Your task to perform on an android device: see tabs open on other devices in the chrome app Image 0: 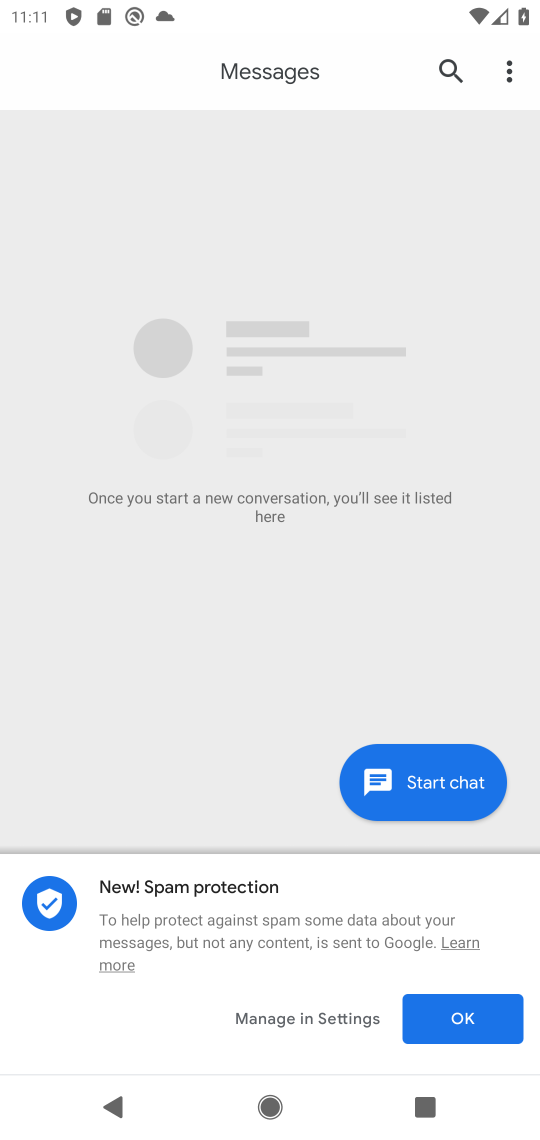
Step 0: press home button
Your task to perform on an android device: see tabs open on other devices in the chrome app Image 1: 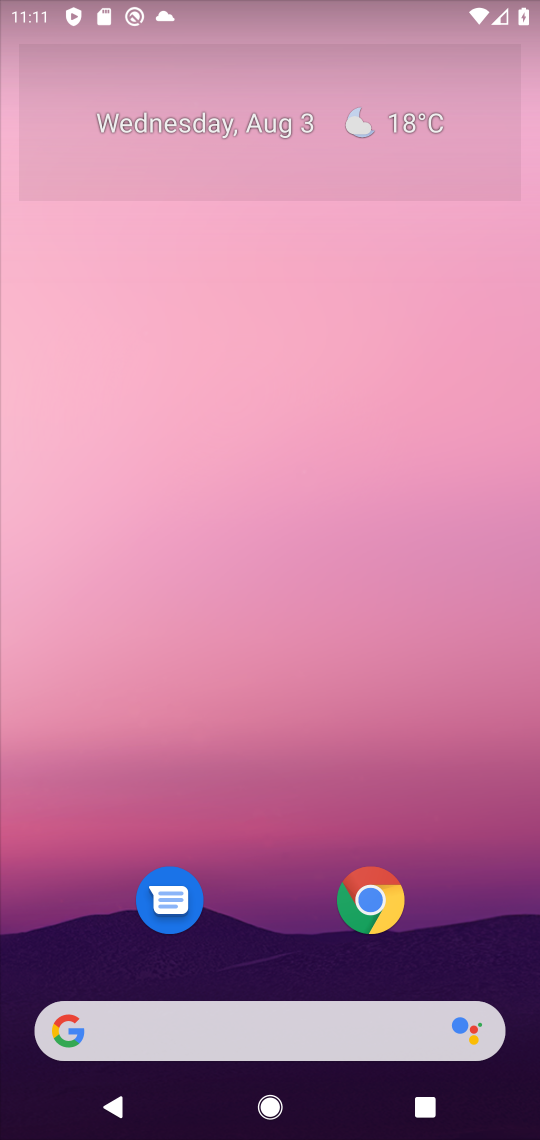
Step 1: click (350, 886)
Your task to perform on an android device: see tabs open on other devices in the chrome app Image 2: 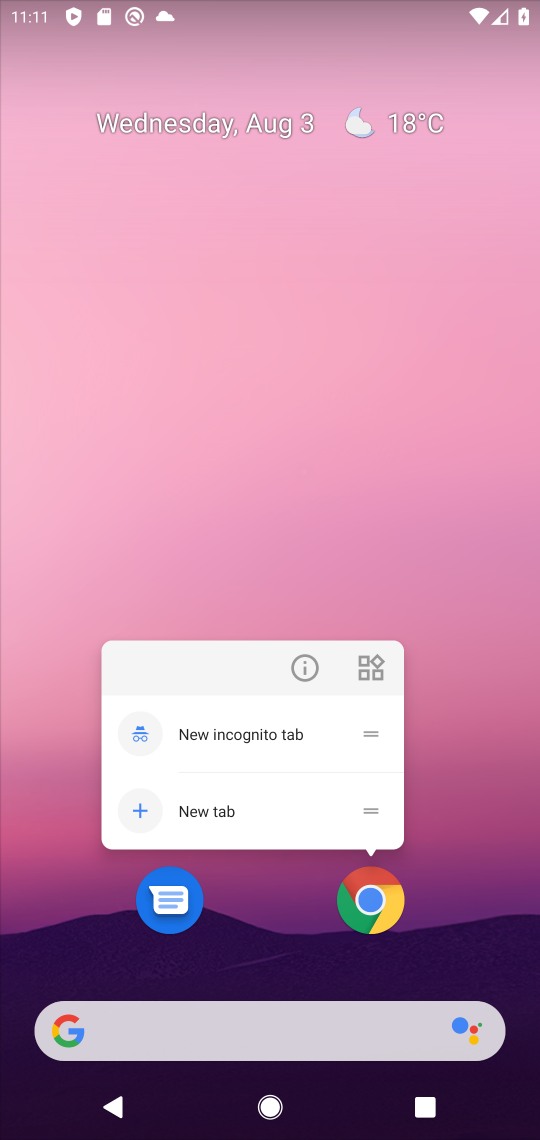
Step 2: click (369, 908)
Your task to perform on an android device: see tabs open on other devices in the chrome app Image 3: 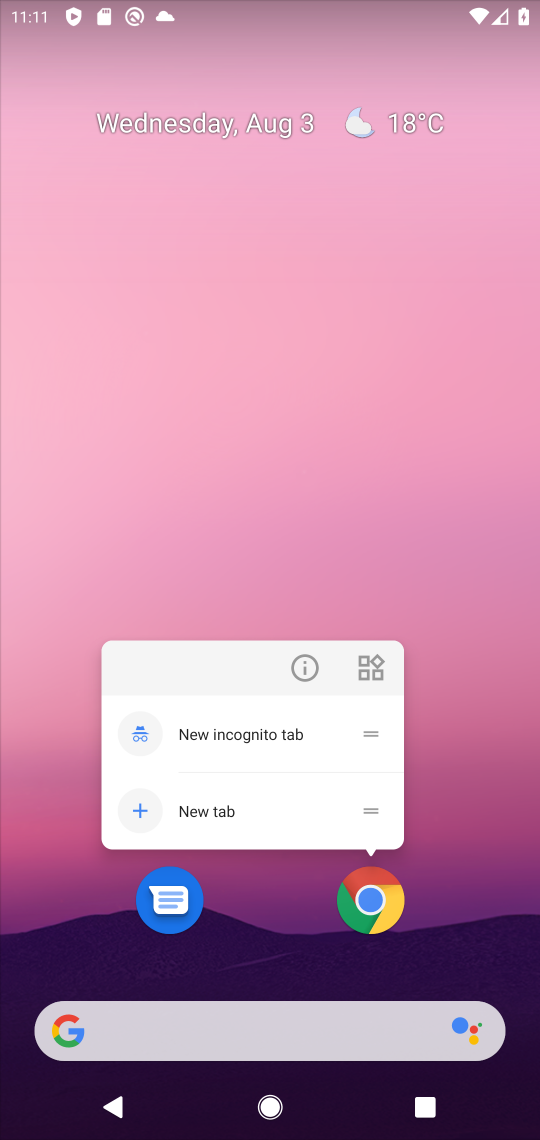
Step 3: click (369, 908)
Your task to perform on an android device: see tabs open on other devices in the chrome app Image 4: 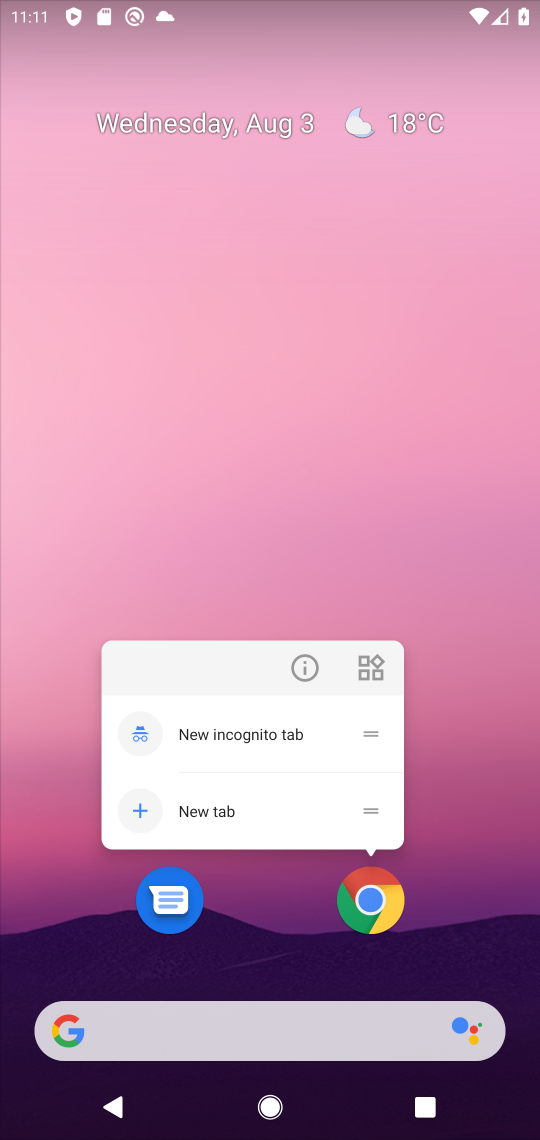
Step 4: click (369, 908)
Your task to perform on an android device: see tabs open on other devices in the chrome app Image 5: 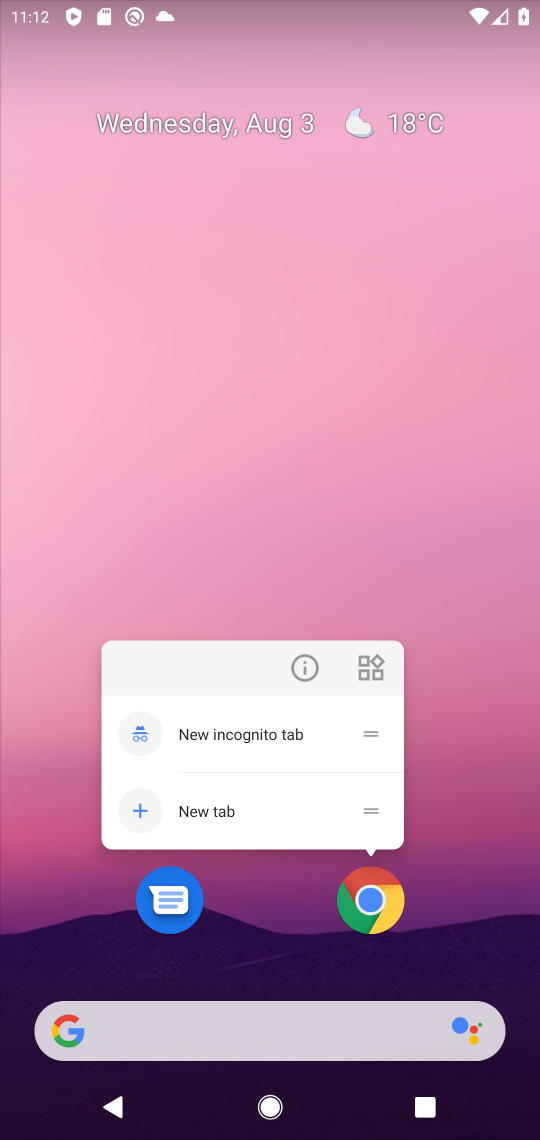
Step 5: click (369, 903)
Your task to perform on an android device: see tabs open on other devices in the chrome app Image 6: 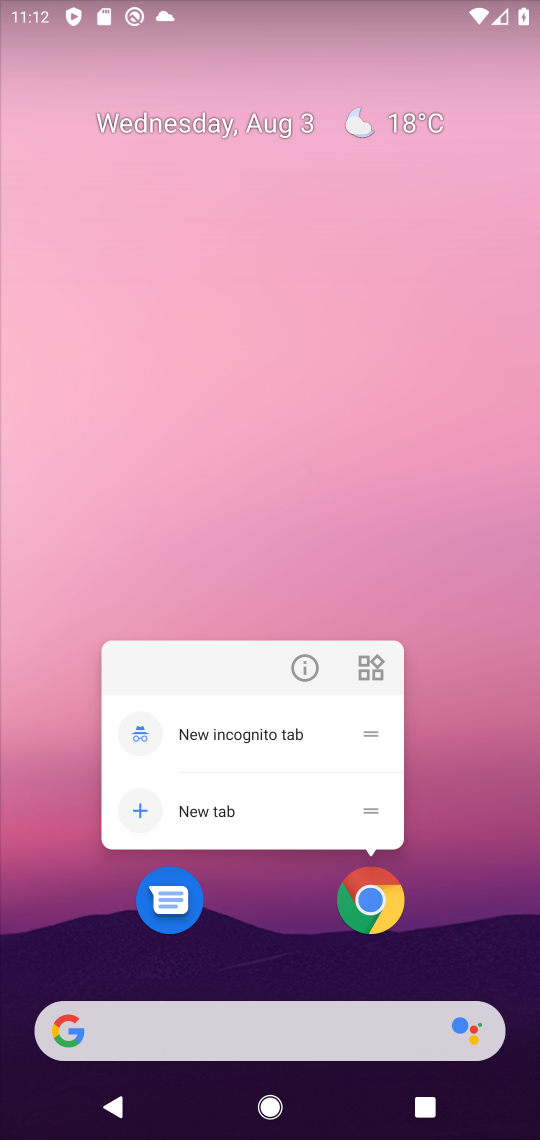
Step 6: click (369, 903)
Your task to perform on an android device: see tabs open on other devices in the chrome app Image 7: 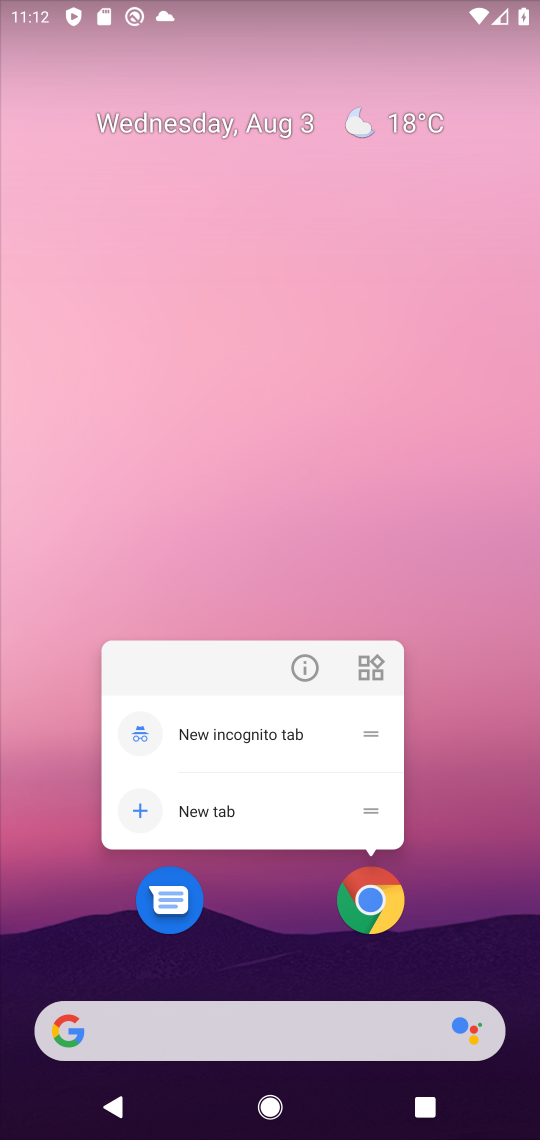
Step 7: click (371, 899)
Your task to perform on an android device: see tabs open on other devices in the chrome app Image 8: 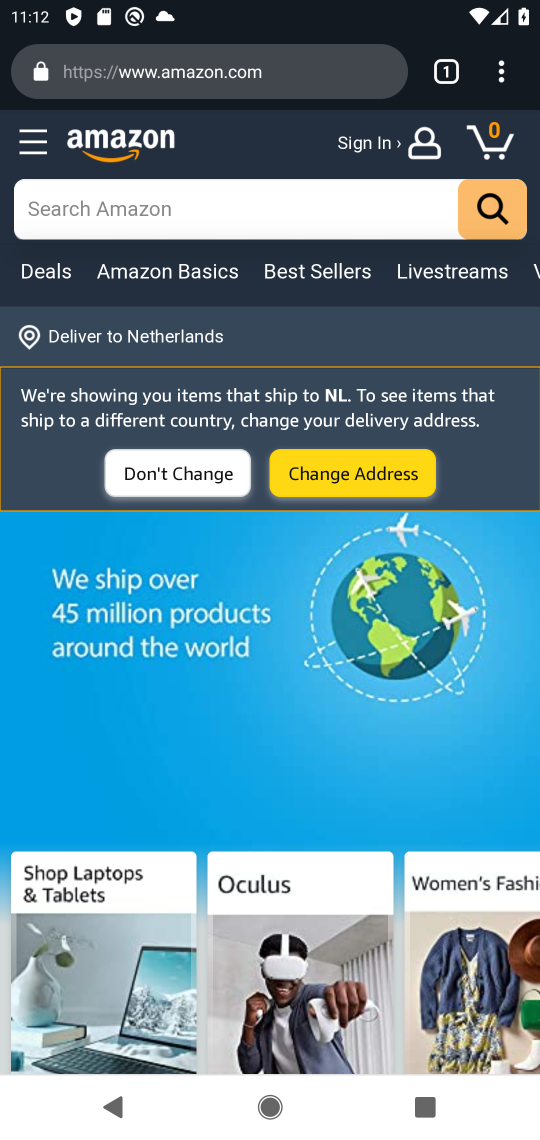
Step 8: task complete